Your task to perform on an android device: turn on the 12-hour format for clock Image 0: 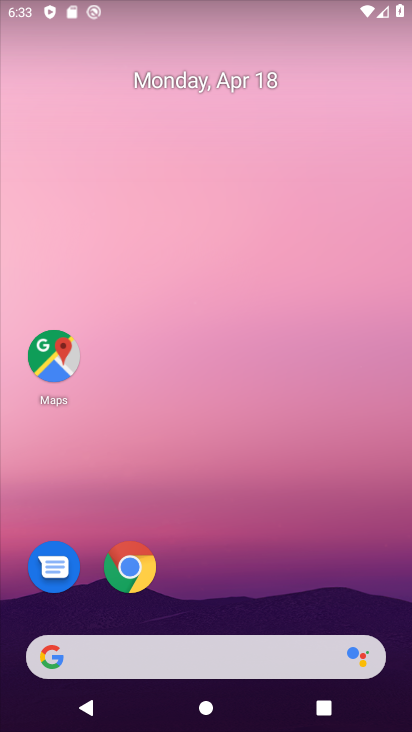
Step 0: drag from (214, 553) to (219, 43)
Your task to perform on an android device: turn on the 12-hour format for clock Image 1: 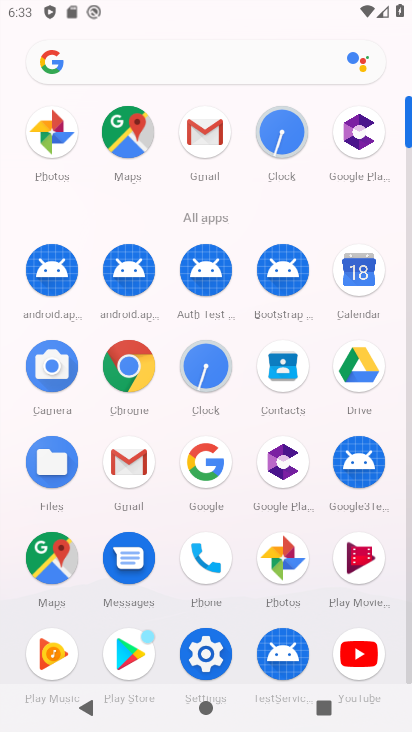
Step 1: click (269, 132)
Your task to perform on an android device: turn on the 12-hour format for clock Image 2: 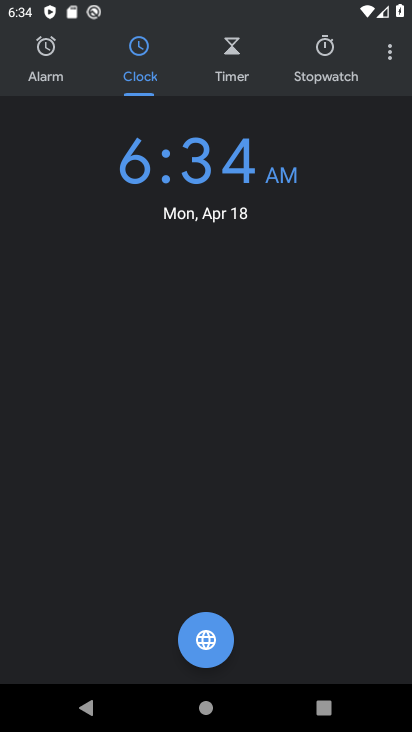
Step 2: click (387, 43)
Your task to perform on an android device: turn on the 12-hour format for clock Image 3: 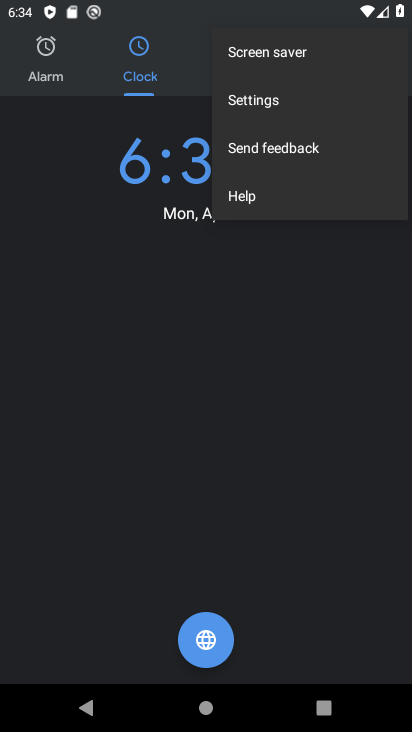
Step 3: click (347, 87)
Your task to perform on an android device: turn on the 12-hour format for clock Image 4: 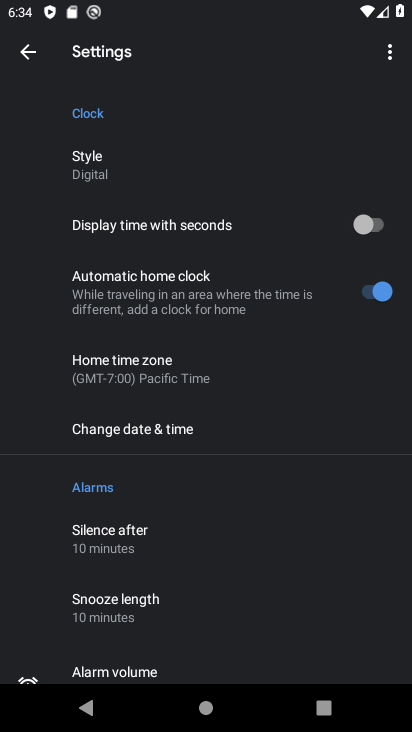
Step 4: drag from (241, 547) to (164, 231)
Your task to perform on an android device: turn on the 12-hour format for clock Image 5: 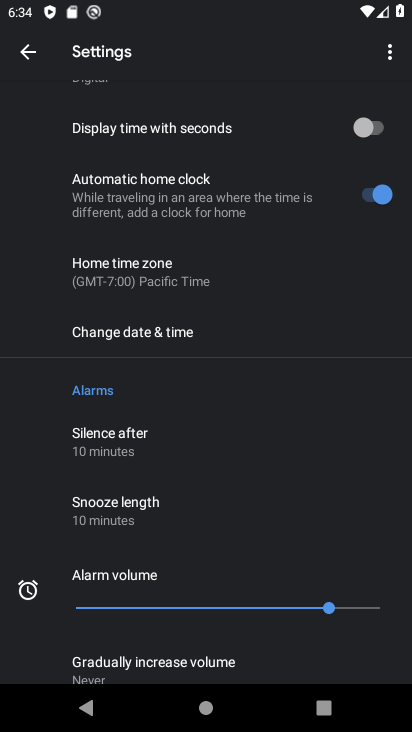
Step 5: drag from (102, 650) to (55, 317)
Your task to perform on an android device: turn on the 12-hour format for clock Image 6: 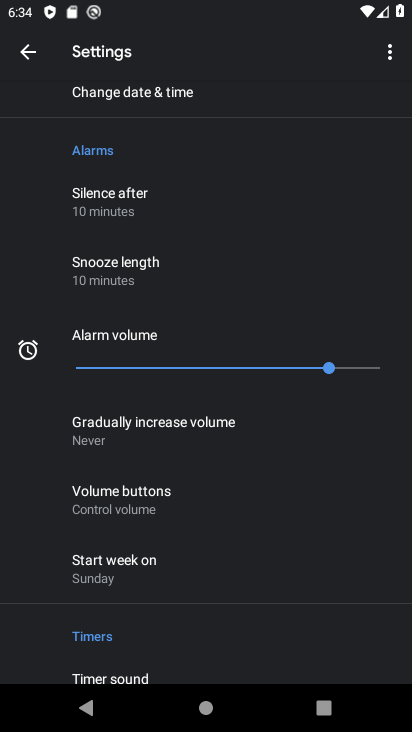
Step 6: drag from (270, 655) to (229, 331)
Your task to perform on an android device: turn on the 12-hour format for clock Image 7: 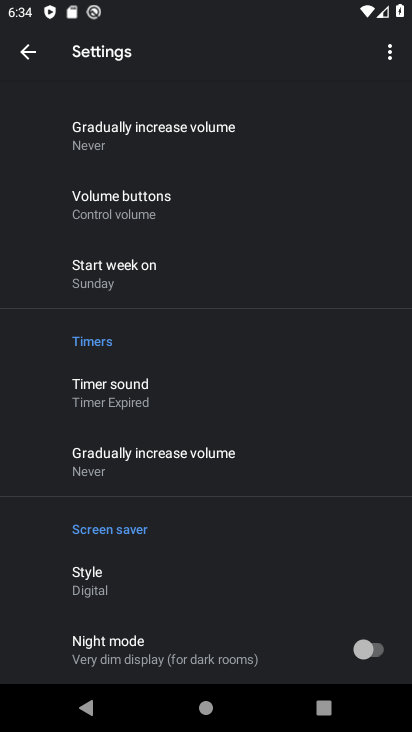
Step 7: drag from (328, 227) to (302, 662)
Your task to perform on an android device: turn on the 12-hour format for clock Image 8: 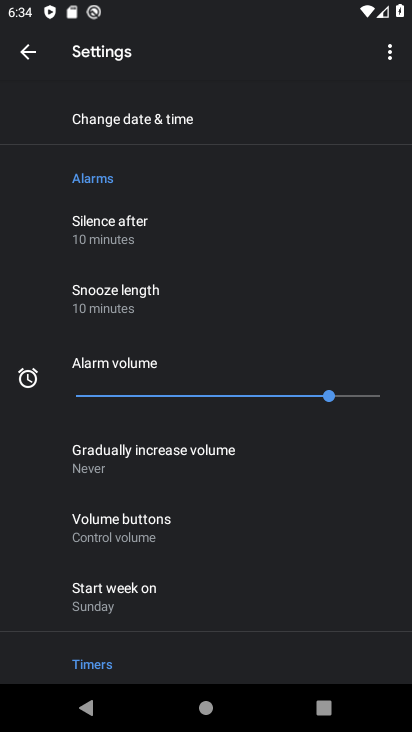
Step 8: click (324, 113)
Your task to perform on an android device: turn on the 12-hour format for clock Image 9: 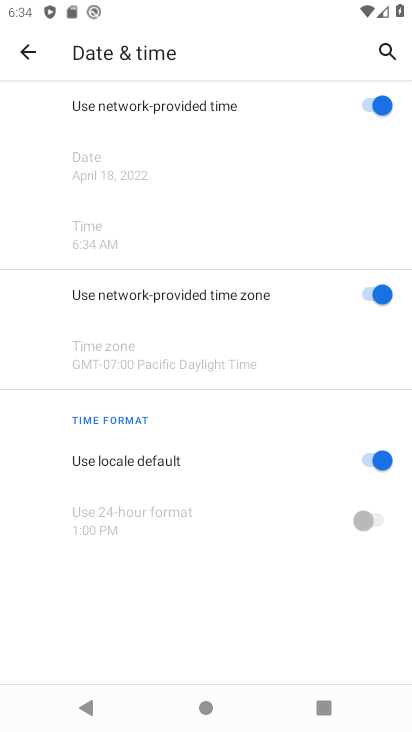
Step 9: drag from (113, 599) to (126, 309)
Your task to perform on an android device: turn on the 12-hour format for clock Image 10: 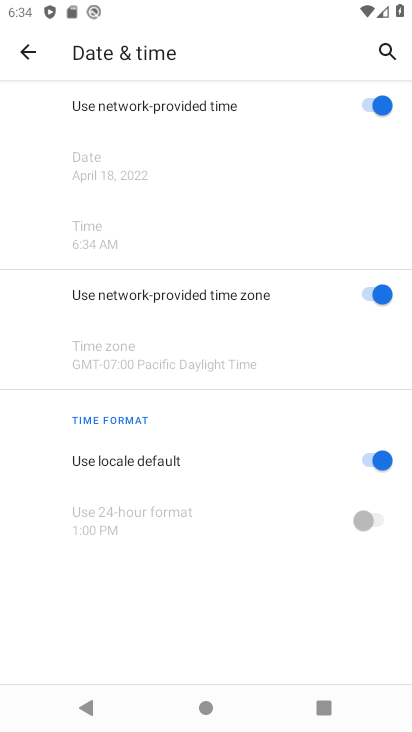
Step 10: click (369, 460)
Your task to perform on an android device: turn on the 12-hour format for clock Image 11: 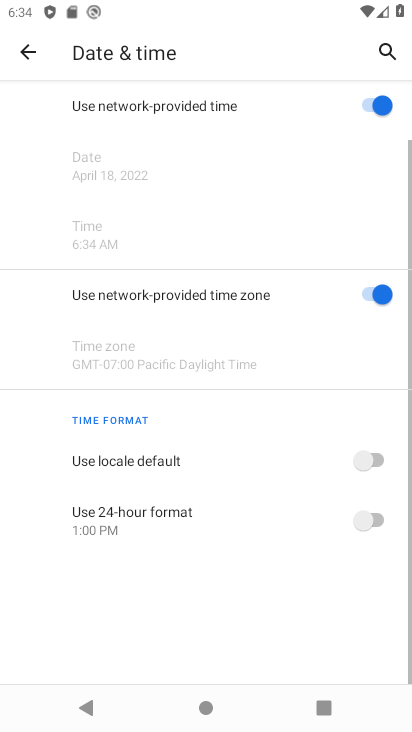
Step 11: click (367, 496)
Your task to perform on an android device: turn on the 12-hour format for clock Image 12: 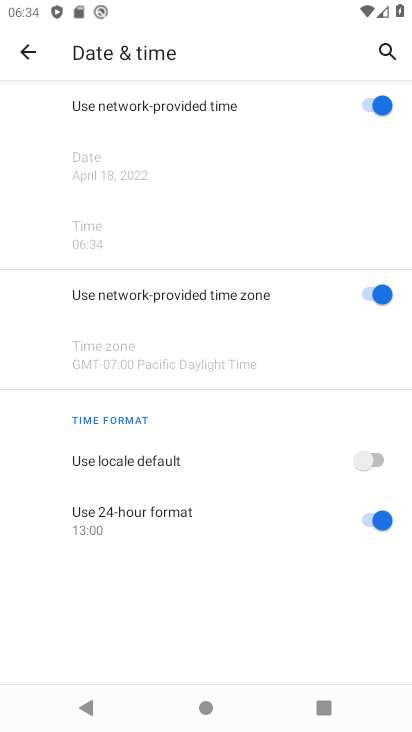
Step 12: task complete